Your task to perform on an android device: Search for the best selling phone on AliExpress Image 0: 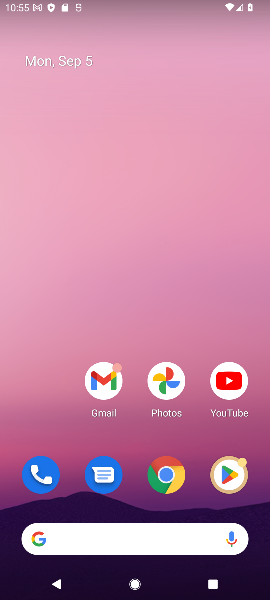
Step 0: click (153, 532)
Your task to perform on an android device: Search for the best selling phone on AliExpress Image 1: 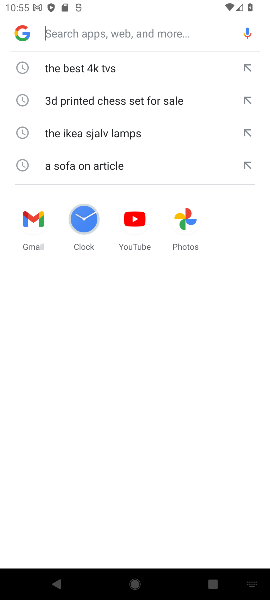
Step 1: type "the best selling phone on AliExpress"
Your task to perform on an android device: Search for the best selling phone on AliExpress Image 2: 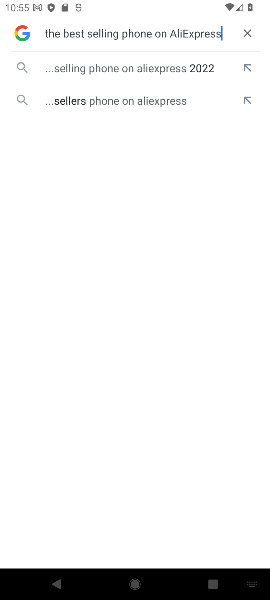
Step 2: click (170, 66)
Your task to perform on an android device: Search for the best selling phone on AliExpress Image 3: 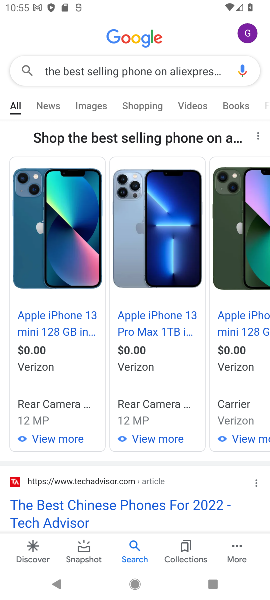
Step 3: task complete